Your task to perform on an android device: Go to accessibility settings Image 0: 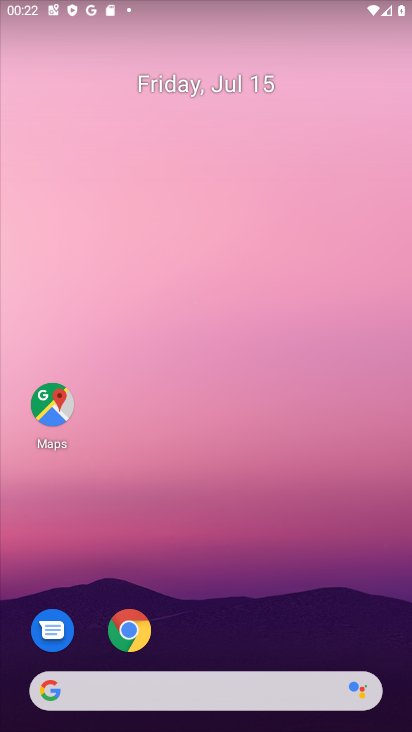
Step 0: drag from (299, 619) to (284, 53)
Your task to perform on an android device: Go to accessibility settings Image 1: 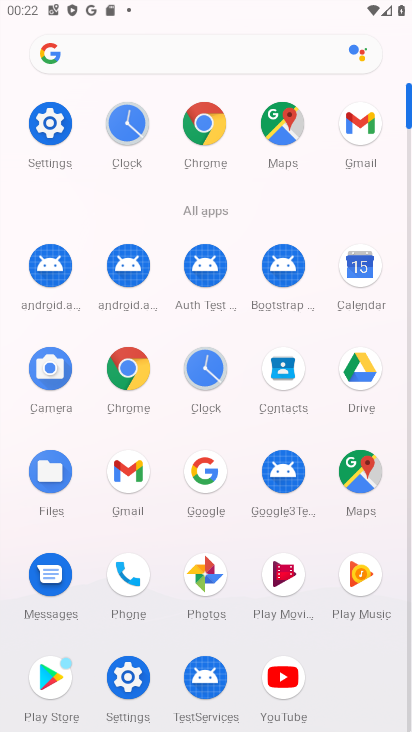
Step 1: click (64, 144)
Your task to perform on an android device: Go to accessibility settings Image 2: 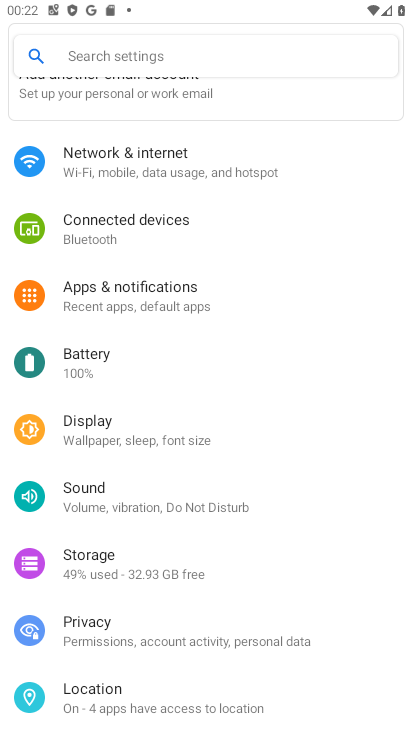
Step 2: drag from (198, 670) to (198, 294)
Your task to perform on an android device: Go to accessibility settings Image 3: 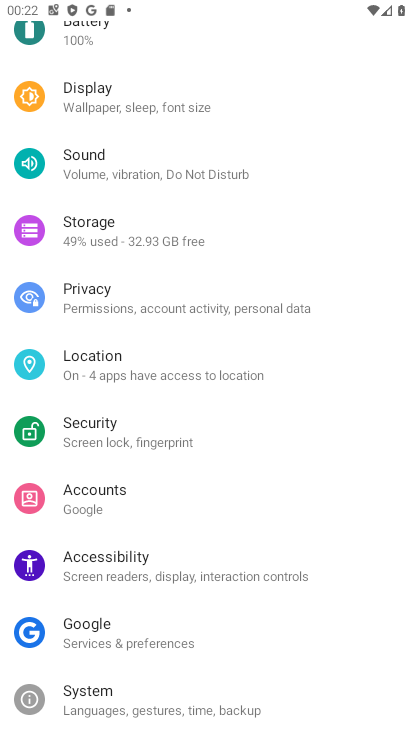
Step 3: click (204, 577)
Your task to perform on an android device: Go to accessibility settings Image 4: 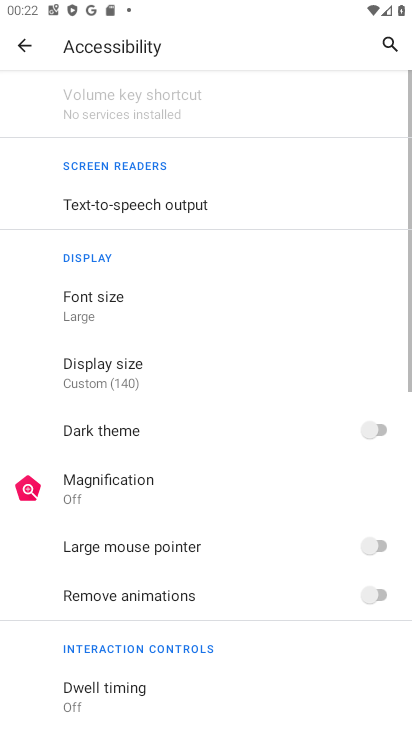
Step 4: task complete